Your task to perform on an android device: change alarm snooze length Image 0: 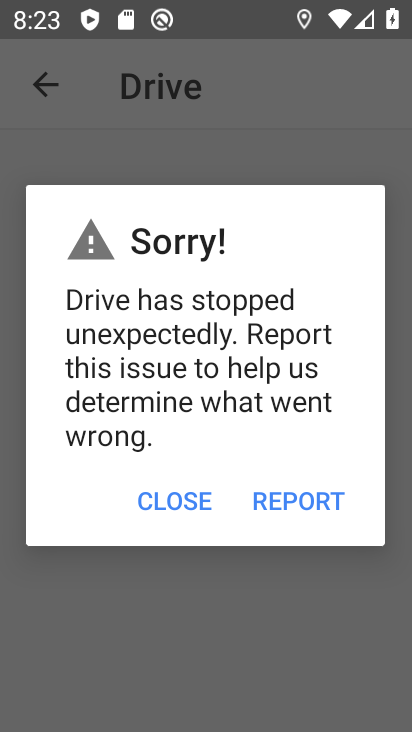
Step 0: press home button
Your task to perform on an android device: change alarm snooze length Image 1: 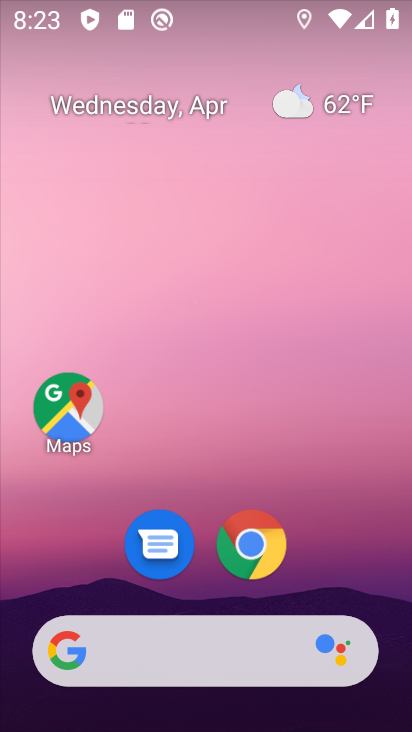
Step 1: drag from (332, 540) to (279, 161)
Your task to perform on an android device: change alarm snooze length Image 2: 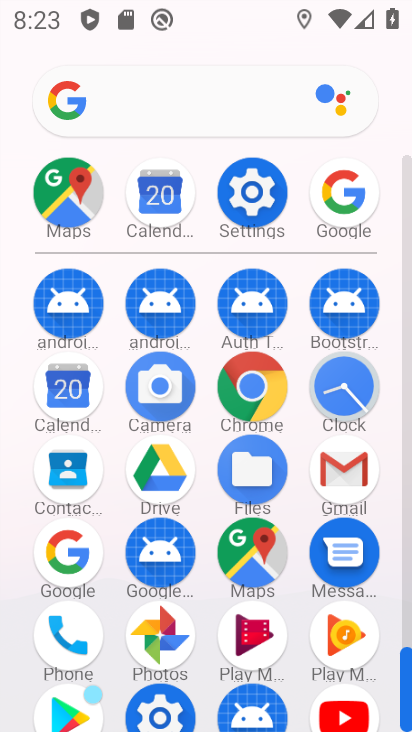
Step 2: click (338, 388)
Your task to perform on an android device: change alarm snooze length Image 3: 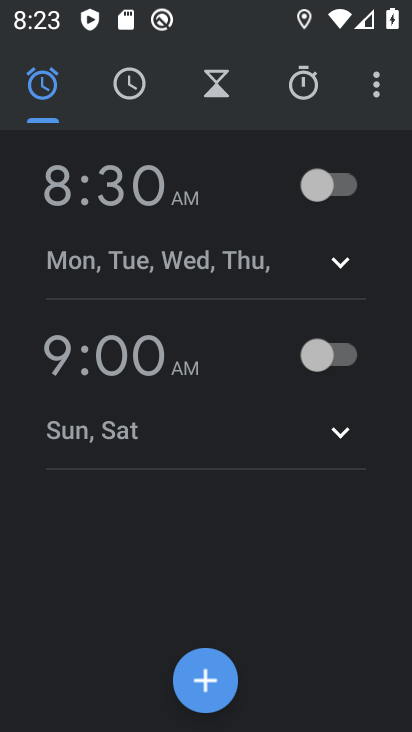
Step 3: click (371, 91)
Your task to perform on an android device: change alarm snooze length Image 4: 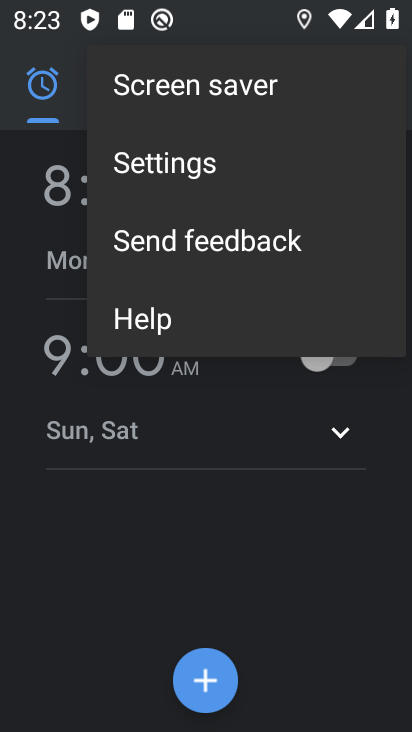
Step 4: click (201, 168)
Your task to perform on an android device: change alarm snooze length Image 5: 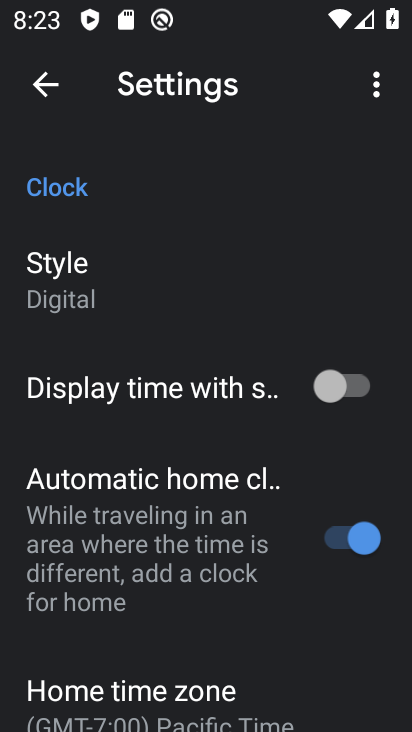
Step 5: drag from (155, 646) to (150, 246)
Your task to perform on an android device: change alarm snooze length Image 6: 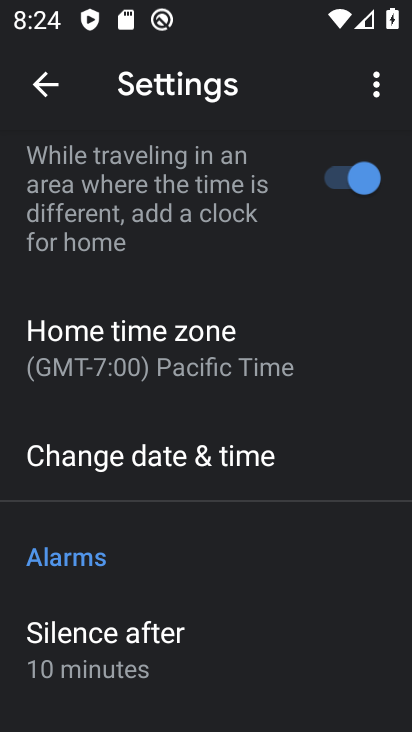
Step 6: drag from (173, 670) to (147, 379)
Your task to perform on an android device: change alarm snooze length Image 7: 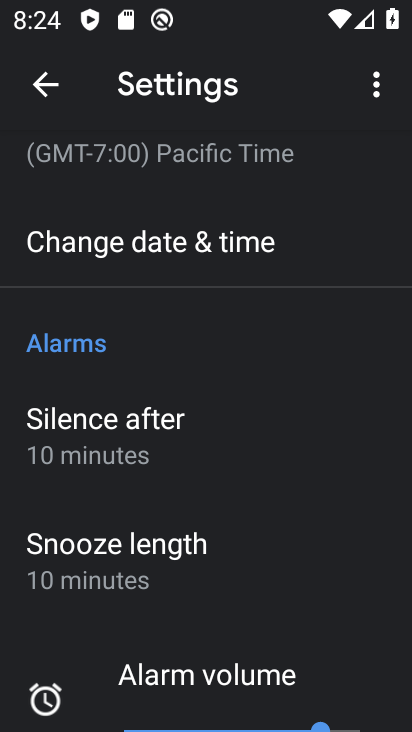
Step 7: click (110, 566)
Your task to perform on an android device: change alarm snooze length Image 8: 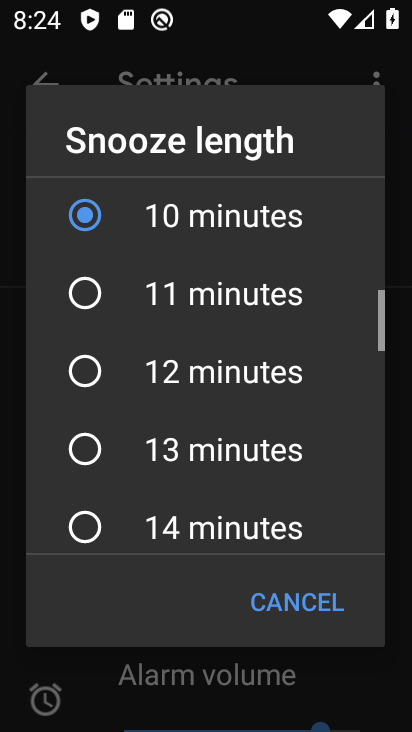
Step 8: click (123, 532)
Your task to perform on an android device: change alarm snooze length Image 9: 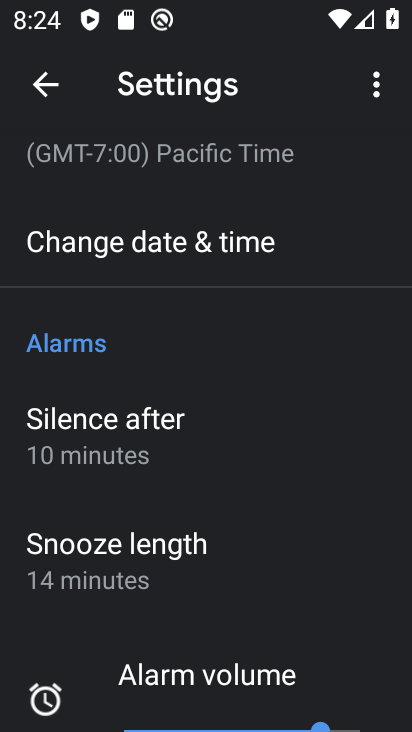
Step 9: task complete